Your task to perform on an android device: Open privacy settings Image 0: 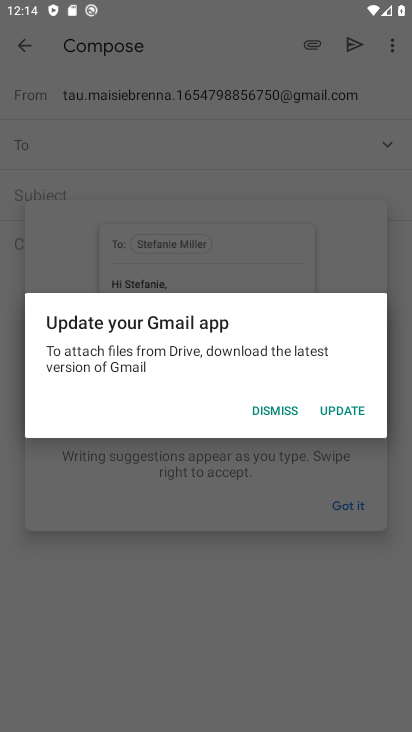
Step 0: press home button
Your task to perform on an android device: Open privacy settings Image 1: 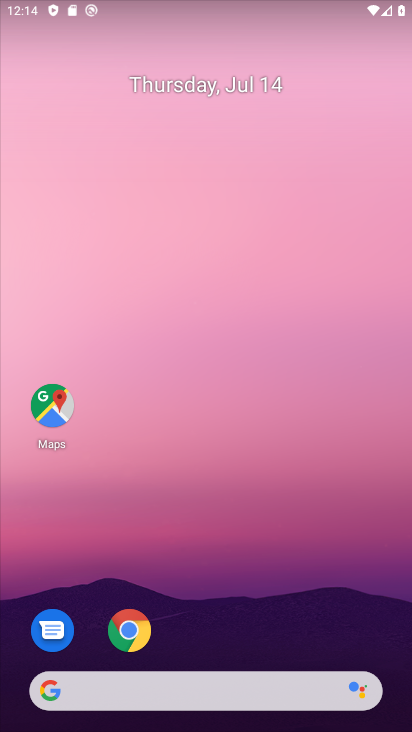
Step 1: drag from (168, 622) to (198, 182)
Your task to perform on an android device: Open privacy settings Image 2: 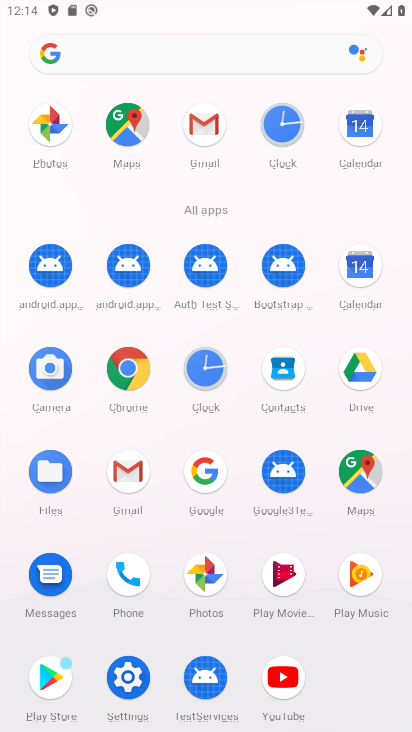
Step 2: click (124, 686)
Your task to perform on an android device: Open privacy settings Image 3: 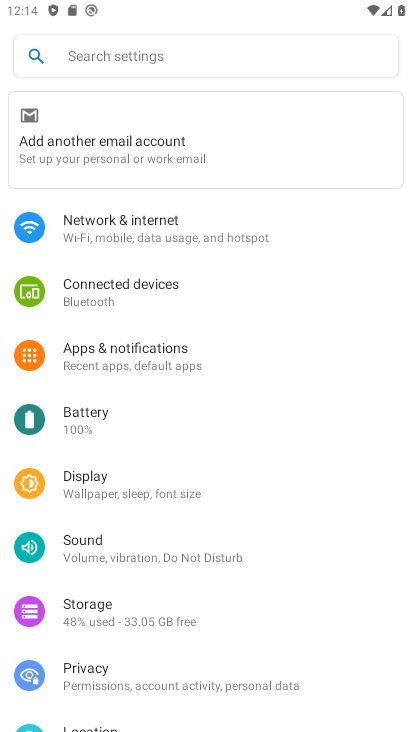
Step 3: click (79, 666)
Your task to perform on an android device: Open privacy settings Image 4: 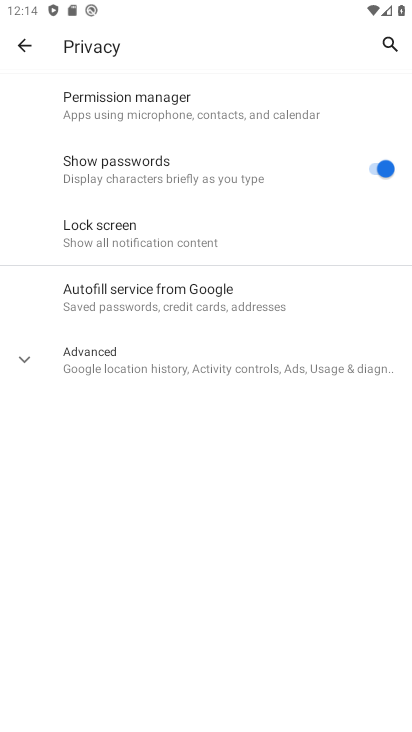
Step 4: click (164, 344)
Your task to perform on an android device: Open privacy settings Image 5: 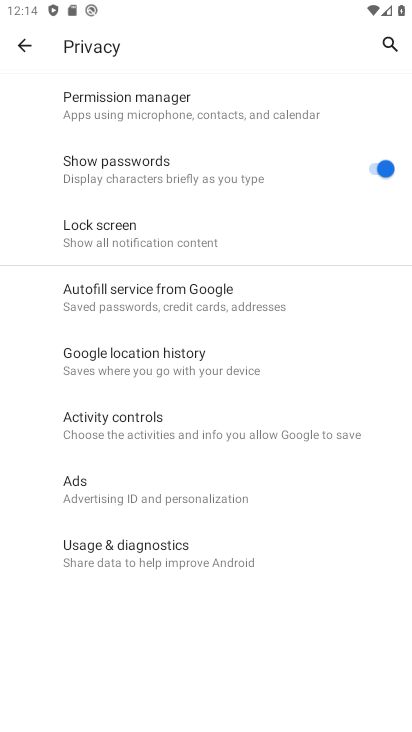
Step 5: task complete